Your task to perform on an android device: Turn off the flashlight Image 0: 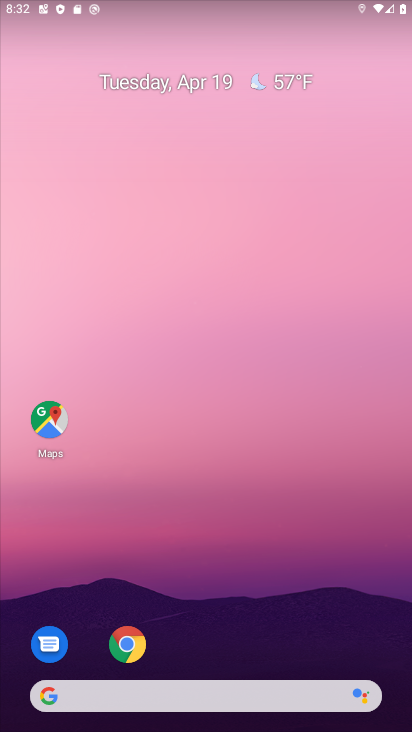
Step 0: drag from (259, 363) to (254, 480)
Your task to perform on an android device: Turn off the flashlight Image 1: 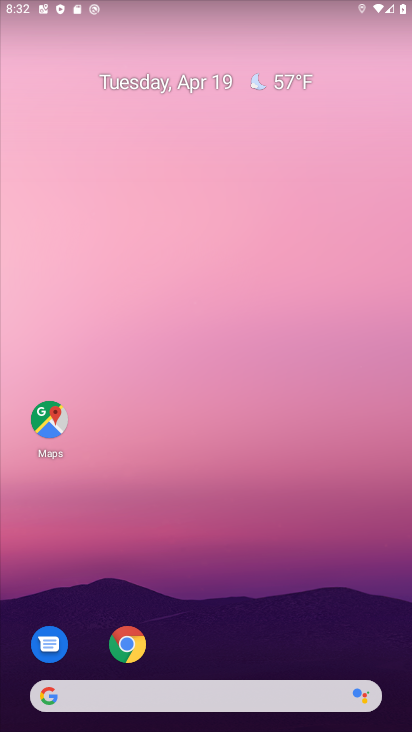
Step 1: task complete